Your task to perform on an android device: See recent photos Image 0: 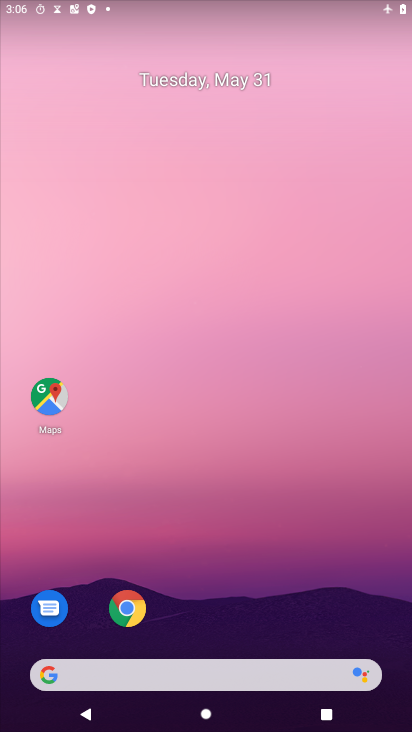
Step 0: drag from (205, 615) to (260, 64)
Your task to perform on an android device: See recent photos Image 1: 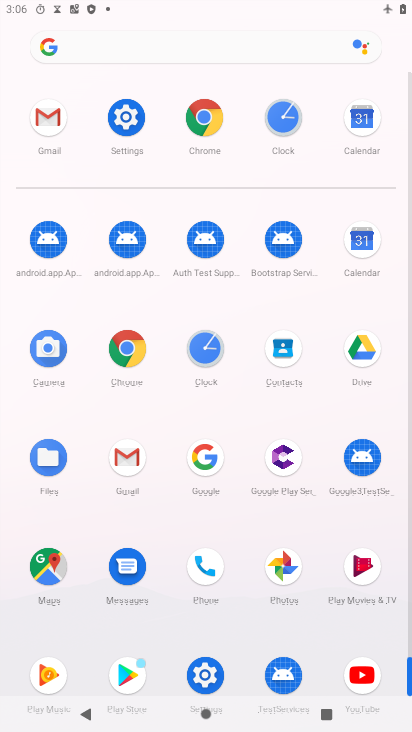
Step 1: click (286, 570)
Your task to perform on an android device: See recent photos Image 2: 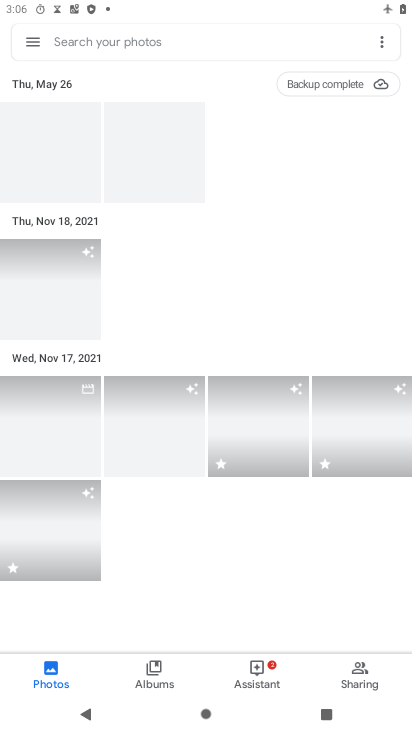
Step 2: task complete